Your task to perform on an android device: open wifi settings Image 0: 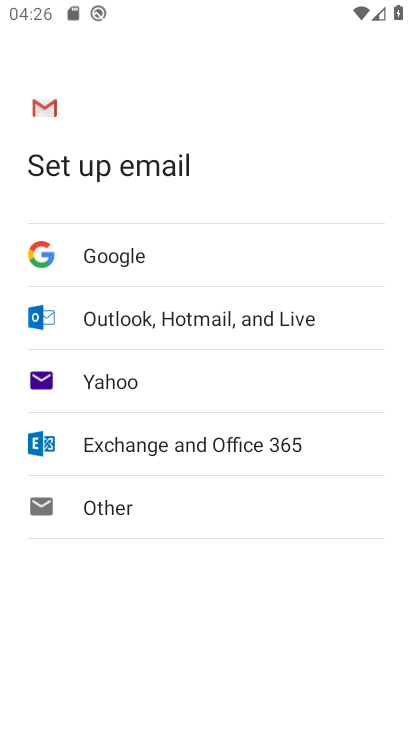
Step 0: drag from (210, 6) to (147, 631)
Your task to perform on an android device: open wifi settings Image 1: 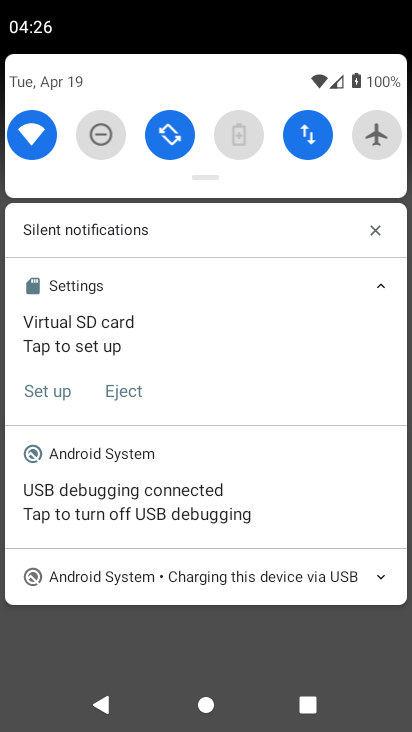
Step 1: click (36, 150)
Your task to perform on an android device: open wifi settings Image 2: 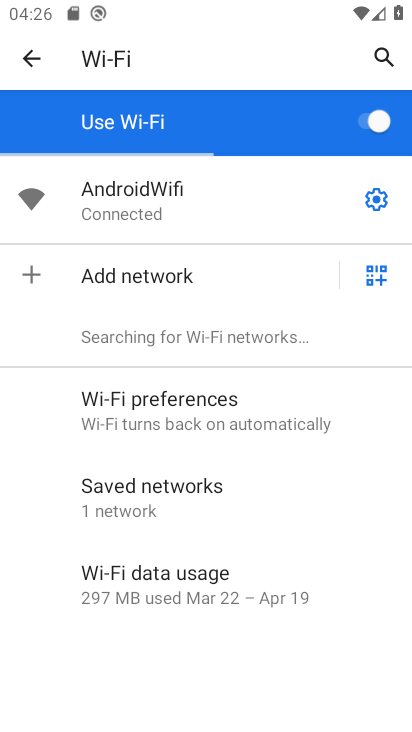
Step 2: task complete